Your task to perform on an android device: Open privacy settings Image 0: 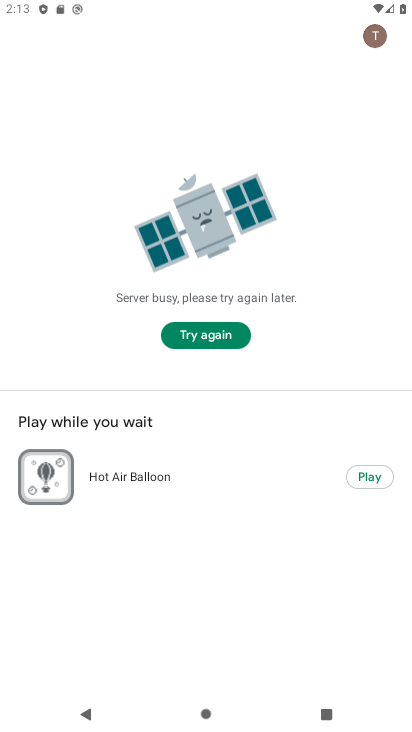
Step 0: press home button
Your task to perform on an android device: Open privacy settings Image 1: 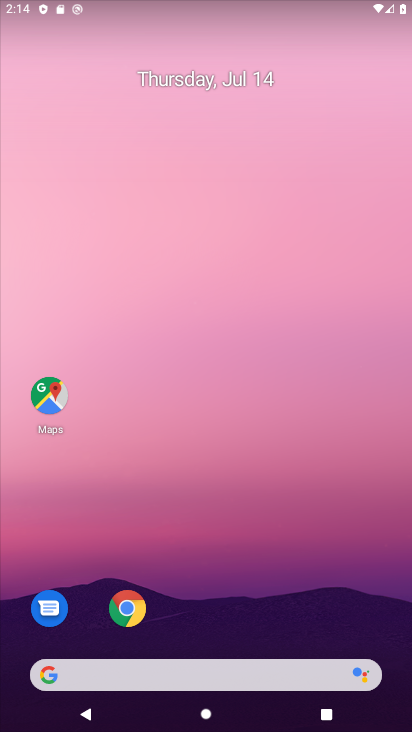
Step 1: drag from (189, 450) to (217, 126)
Your task to perform on an android device: Open privacy settings Image 2: 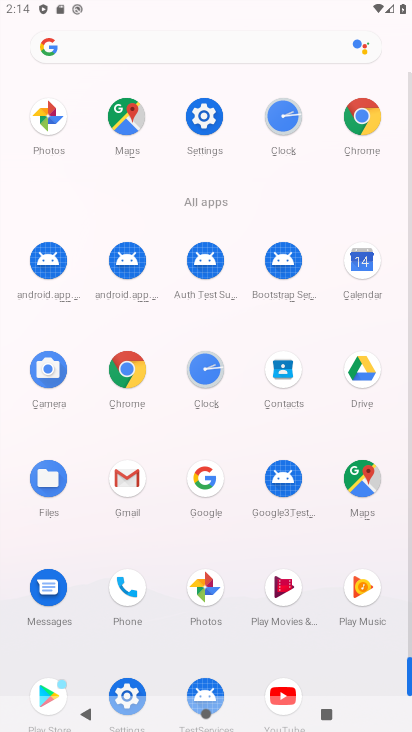
Step 2: click (145, 371)
Your task to perform on an android device: Open privacy settings Image 3: 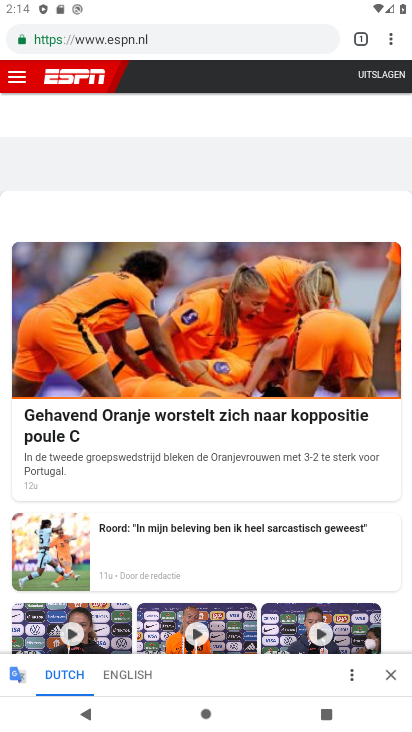
Step 3: drag from (389, 40) to (306, 470)
Your task to perform on an android device: Open privacy settings Image 4: 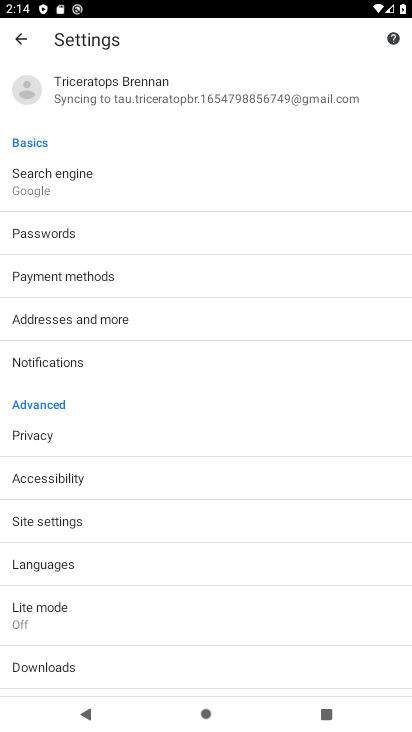
Step 4: click (79, 428)
Your task to perform on an android device: Open privacy settings Image 5: 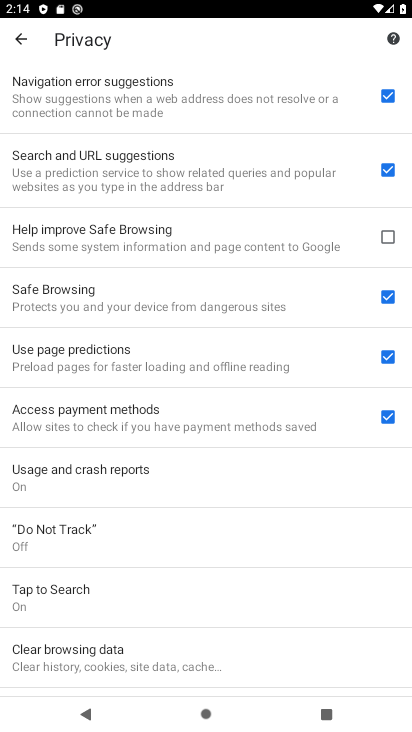
Step 5: task complete